Your task to perform on an android device: open a bookmark in the chrome app Image 0: 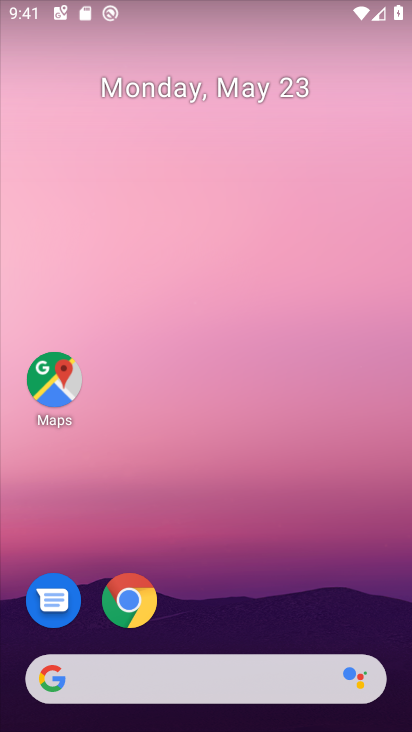
Step 0: click (127, 601)
Your task to perform on an android device: open a bookmark in the chrome app Image 1: 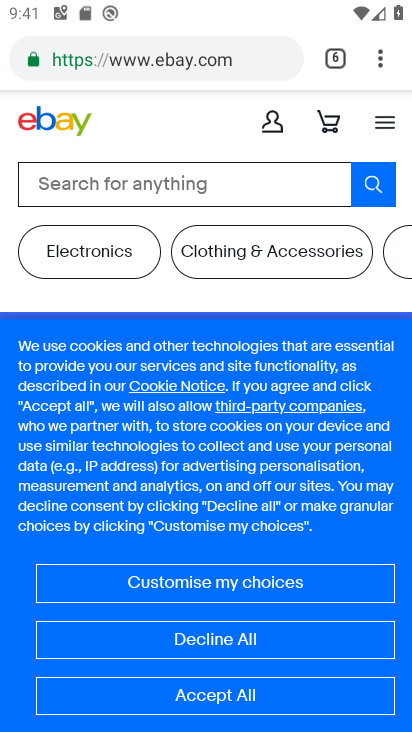
Step 1: click (381, 63)
Your task to perform on an android device: open a bookmark in the chrome app Image 2: 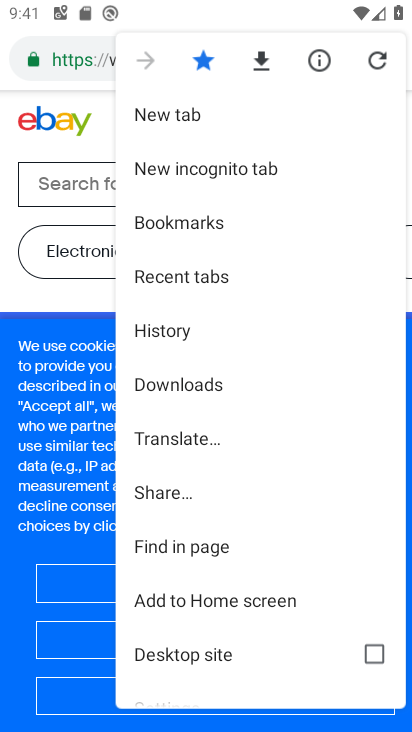
Step 2: click (193, 217)
Your task to perform on an android device: open a bookmark in the chrome app Image 3: 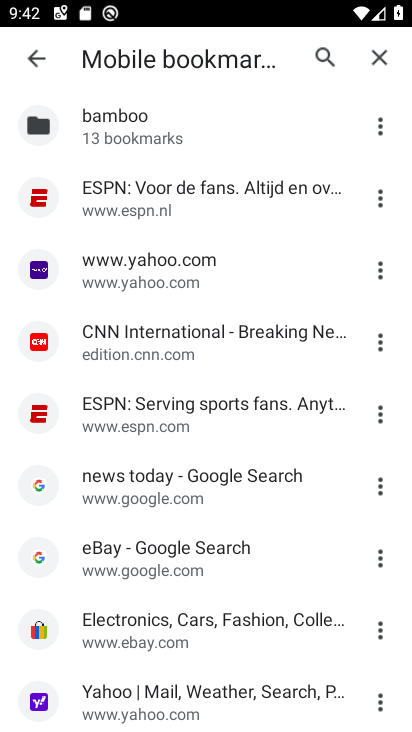
Step 3: click (162, 196)
Your task to perform on an android device: open a bookmark in the chrome app Image 4: 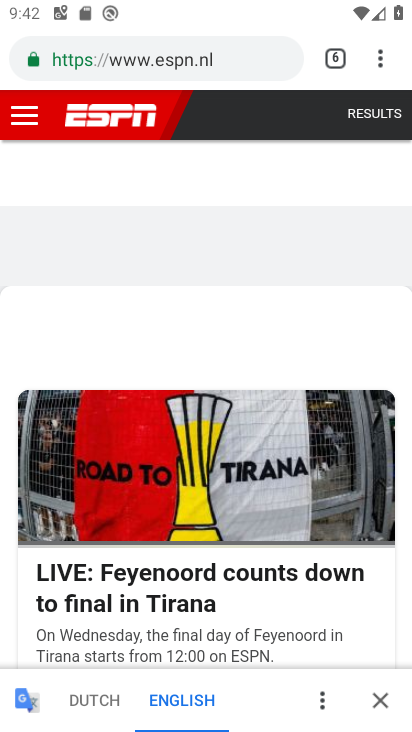
Step 4: task complete